Your task to perform on an android device: change the upload size in google photos Image 0: 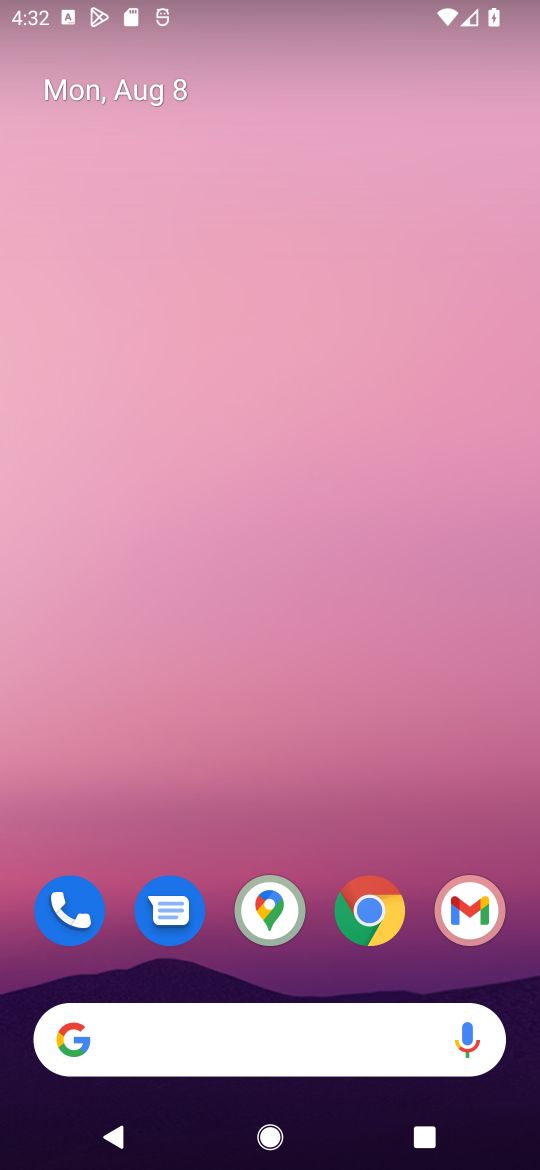
Step 0: drag from (284, 795) to (409, 242)
Your task to perform on an android device: change the upload size in google photos Image 1: 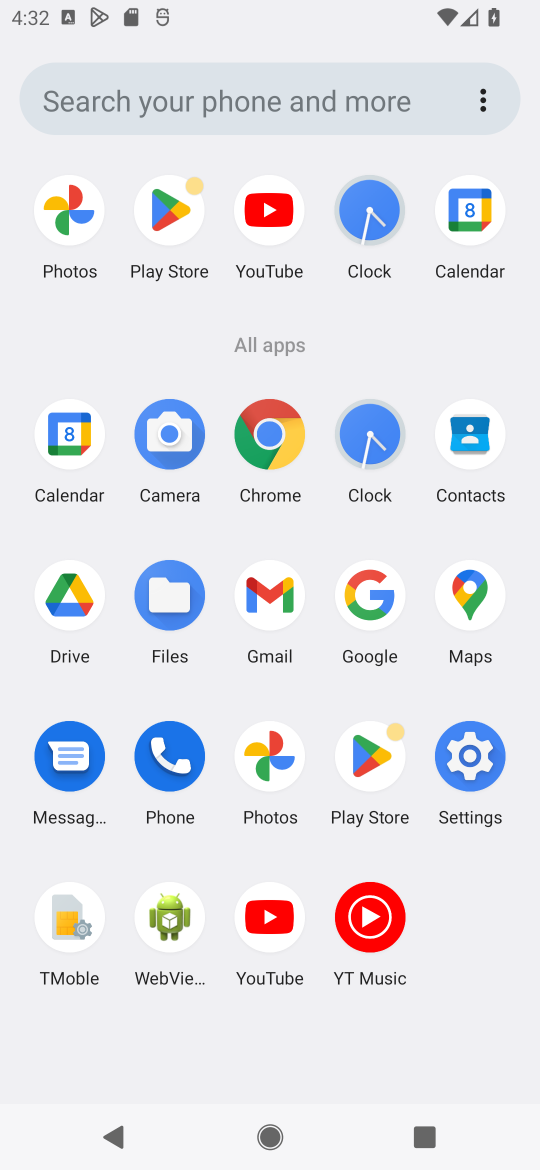
Step 1: click (50, 217)
Your task to perform on an android device: change the upload size in google photos Image 2: 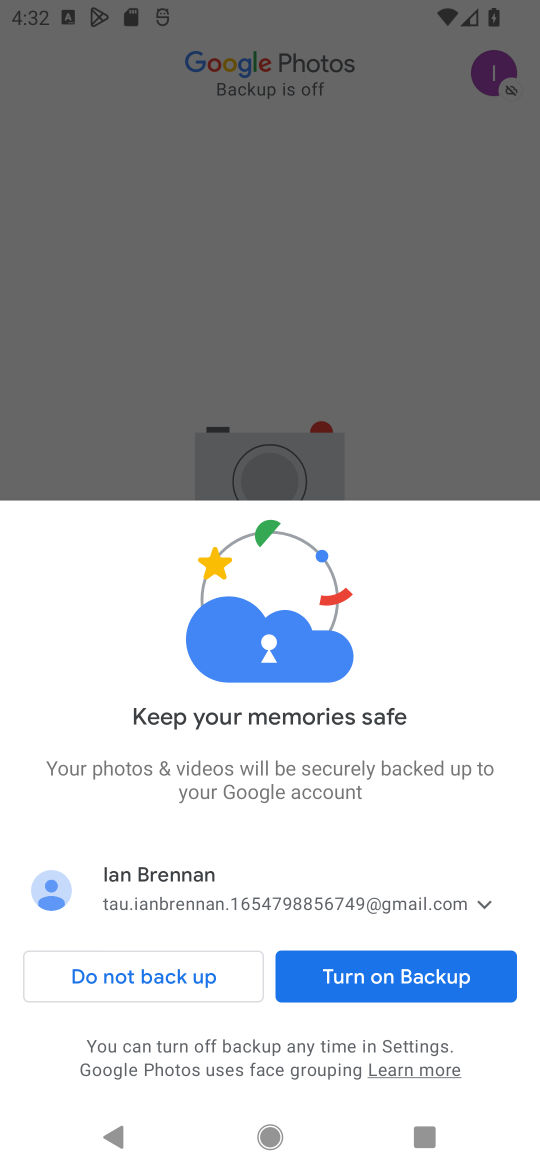
Step 2: click (183, 970)
Your task to perform on an android device: change the upload size in google photos Image 3: 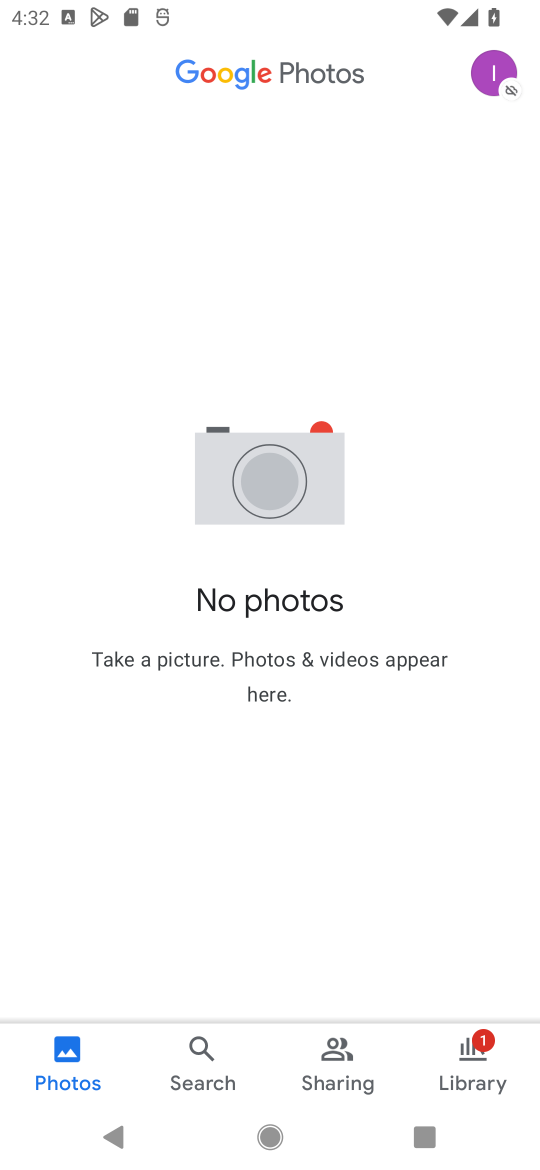
Step 3: click (484, 73)
Your task to perform on an android device: change the upload size in google photos Image 4: 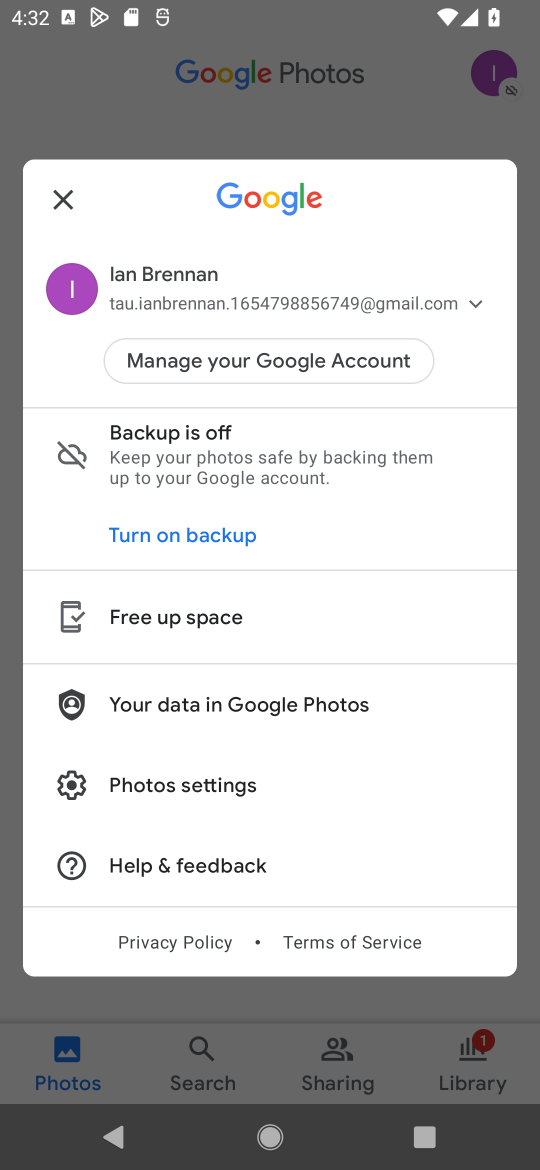
Step 4: click (125, 788)
Your task to perform on an android device: change the upload size in google photos Image 5: 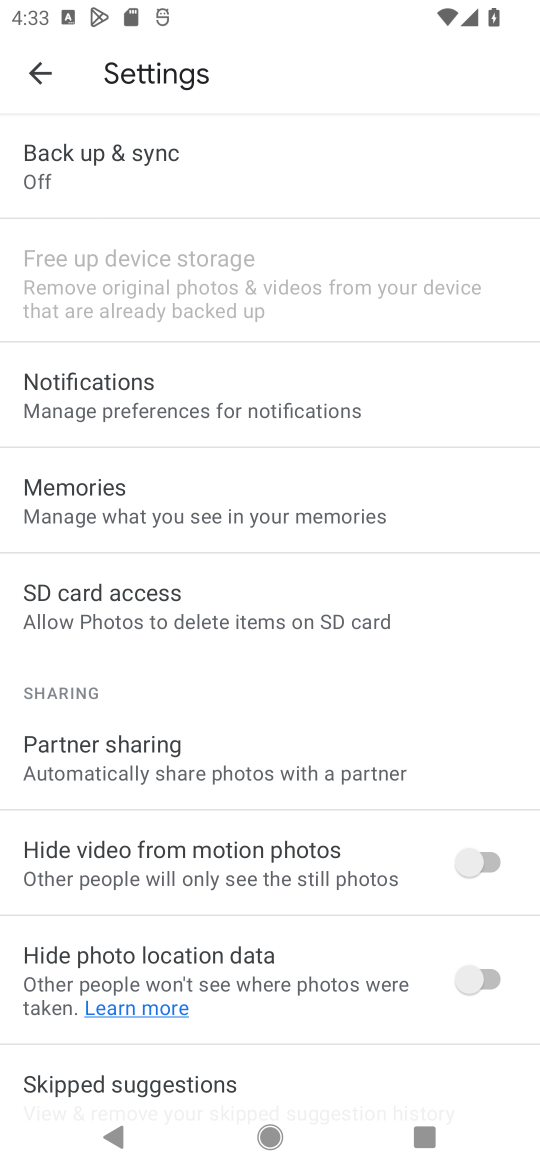
Step 5: task complete